Your task to perform on an android device: Open Yahoo.com Image 0: 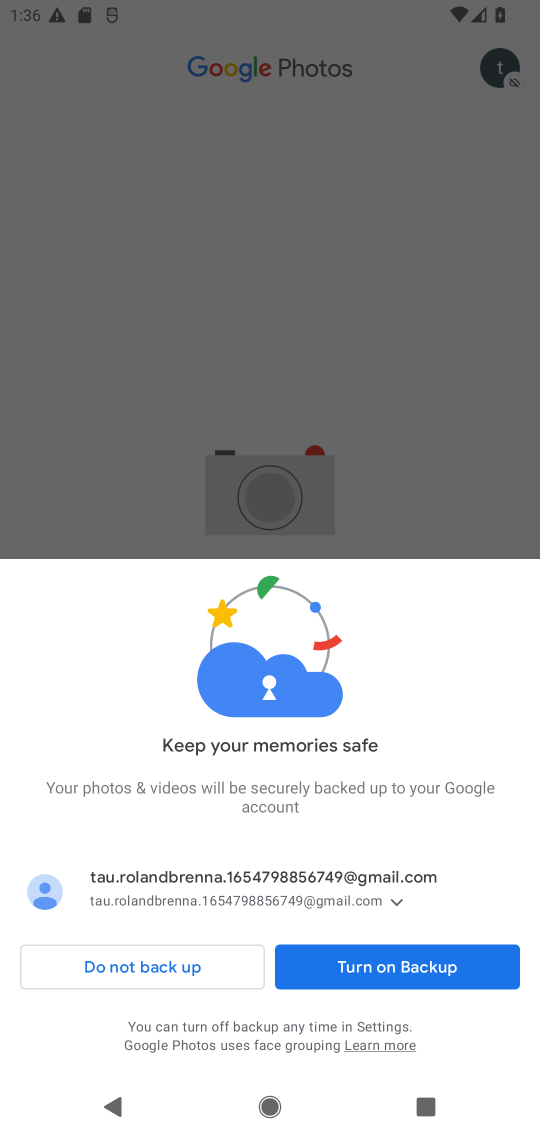
Step 0: press home button
Your task to perform on an android device: Open Yahoo.com Image 1: 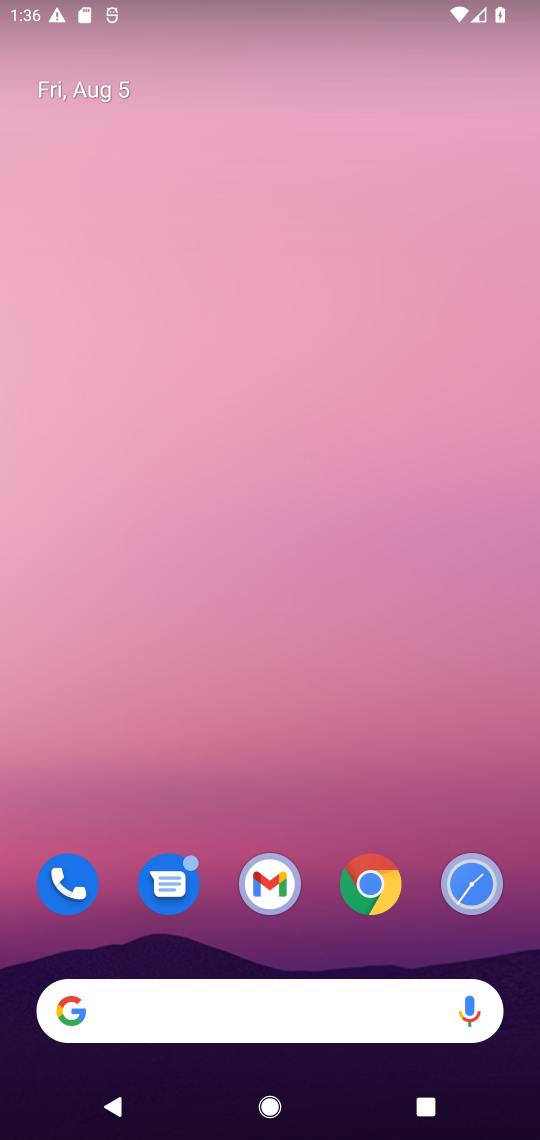
Step 1: drag from (501, 882) to (261, 0)
Your task to perform on an android device: Open Yahoo.com Image 2: 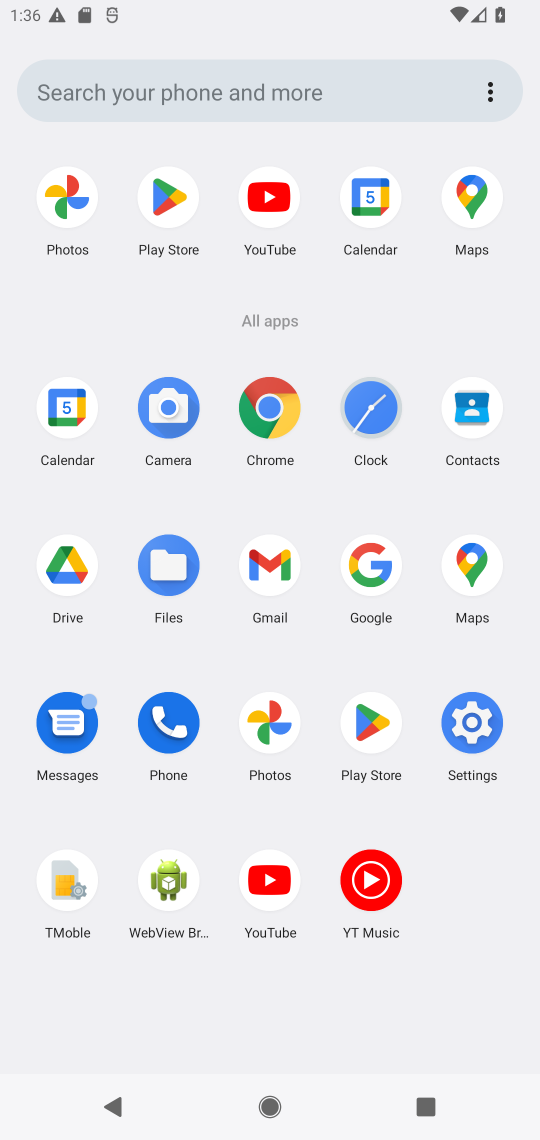
Step 2: click (383, 543)
Your task to perform on an android device: Open Yahoo.com Image 3: 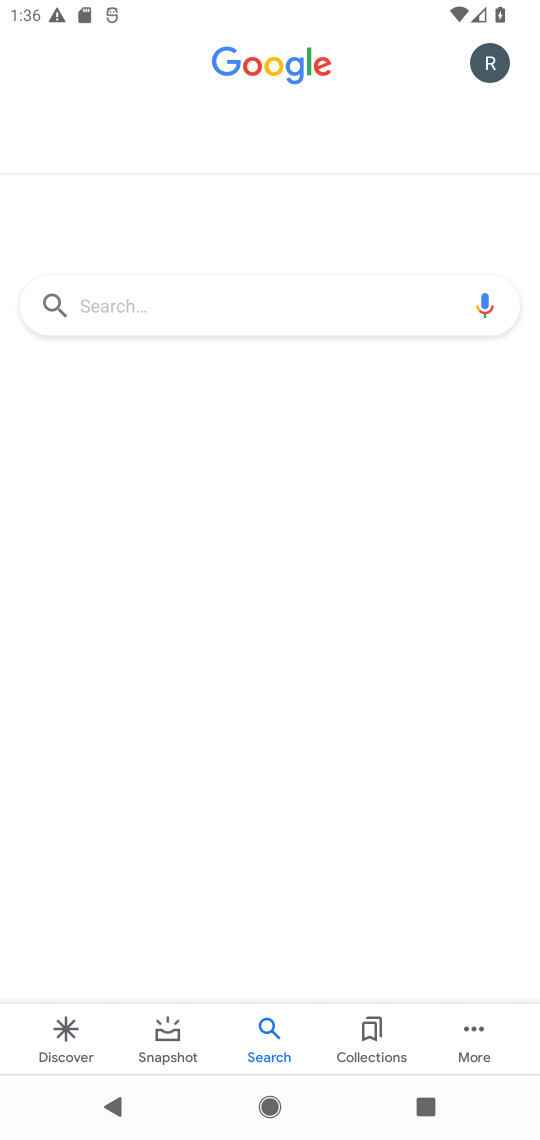
Step 3: click (235, 314)
Your task to perform on an android device: Open Yahoo.com Image 4: 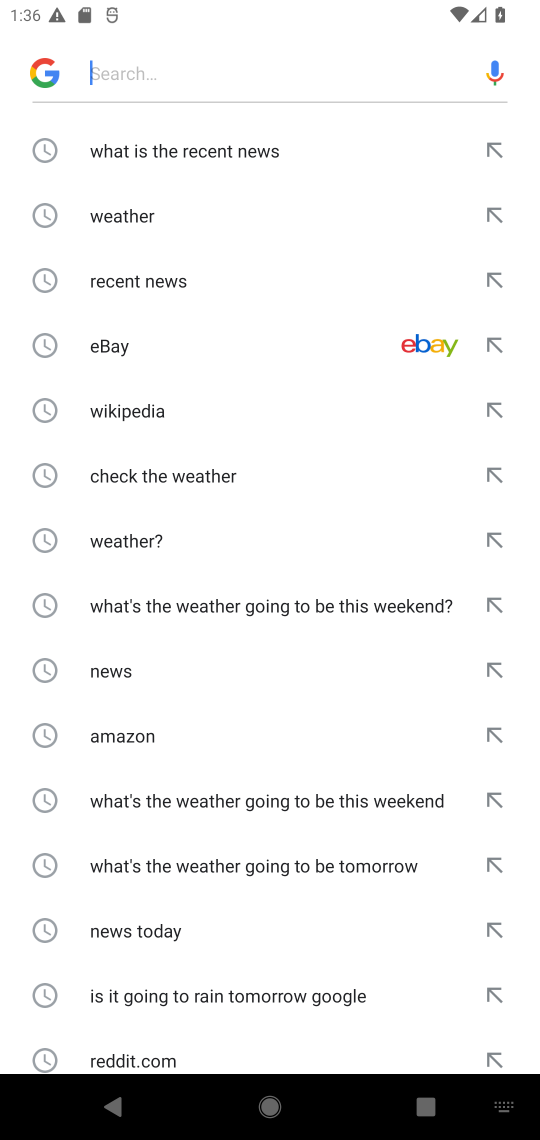
Step 4: type "Yahoo.com"
Your task to perform on an android device: Open Yahoo.com Image 5: 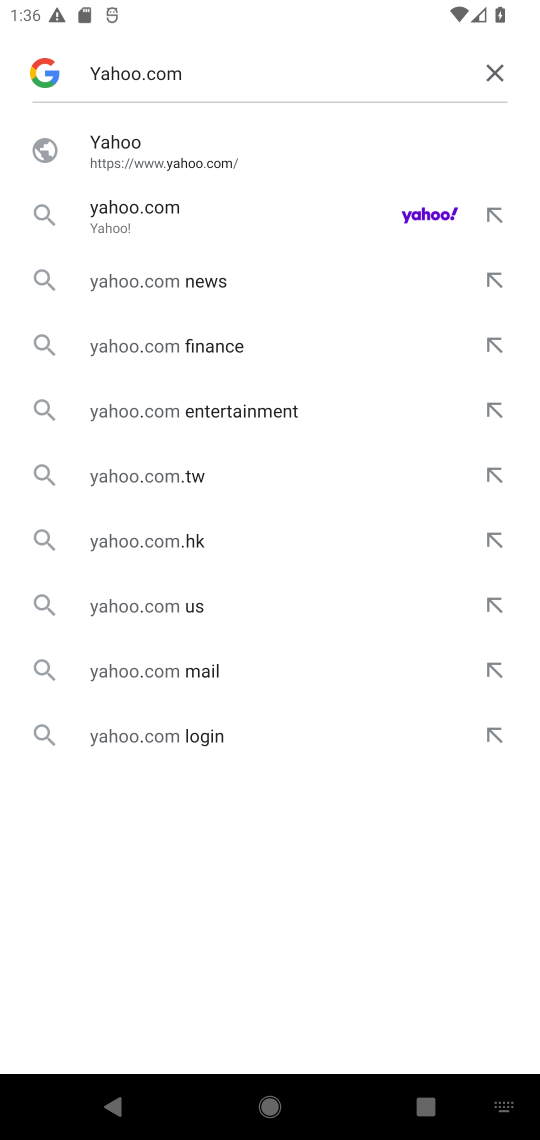
Step 5: click (165, 204)
Your task to perform on an android device: Open Yahoo.com Image 6: 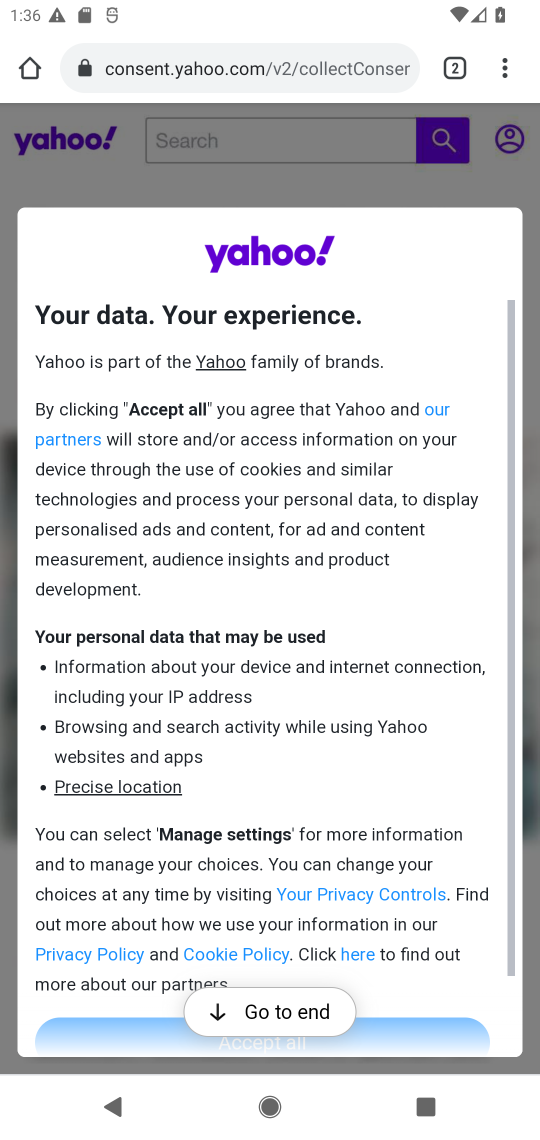
Step 6: task complete